Your task to perform on an android device: Go to Android settings Image 0: 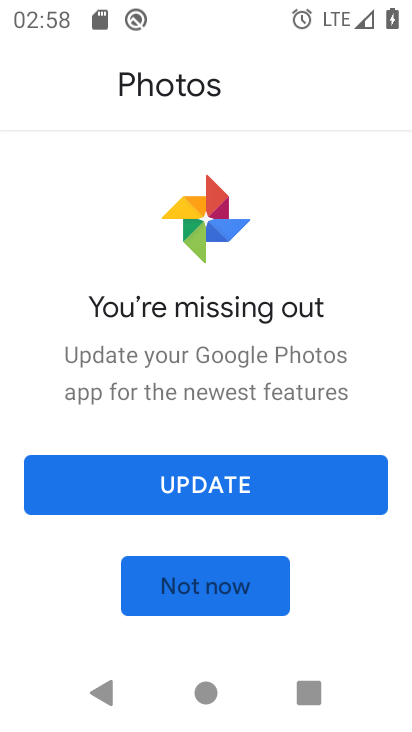
Step 0: press home button
Your task to perform on an android device: Go to Android settings Image 1: 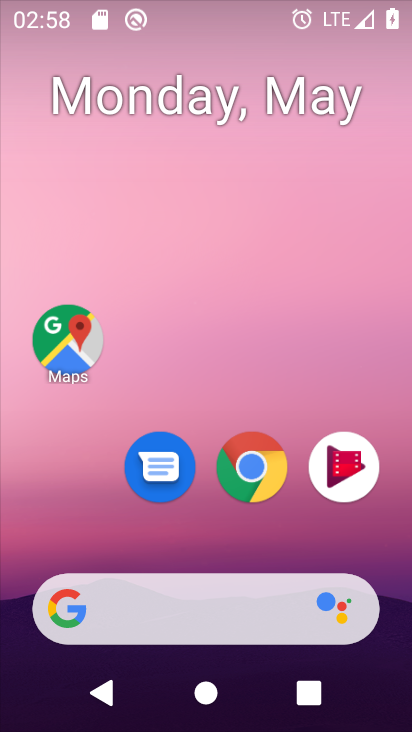
Step 1: drag from (225, 531) to (251, 189)
Your task to perform on an android device: Go to Android settings Image 2: 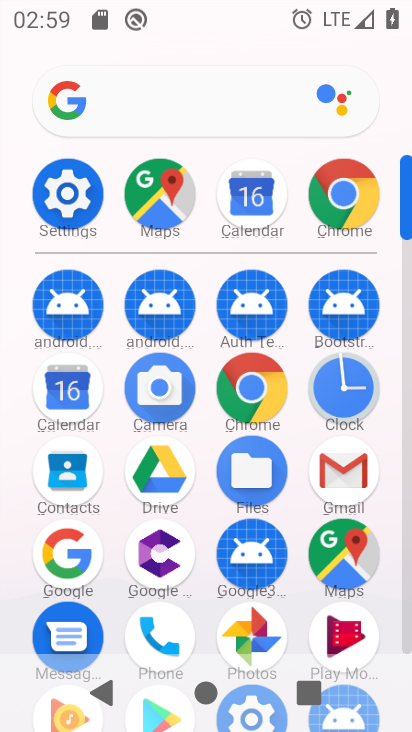
Step 2: click (52, 185)
Your task to perform on an android device: Go to Android settings Image 3: 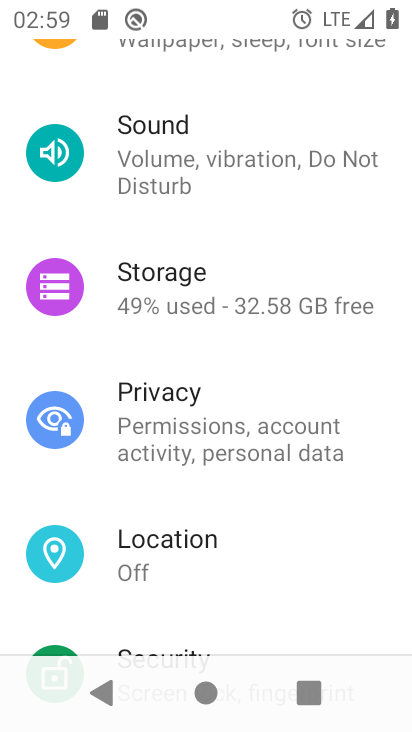
Step 3: task complete